Your task to perform on an android device: What's on my calendar today? Image 0: 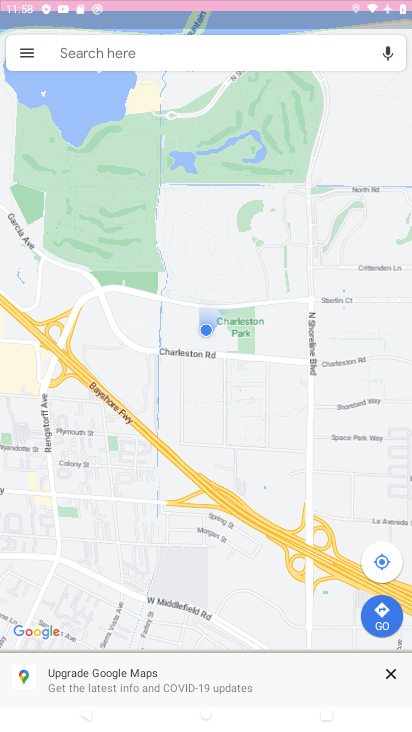
Step 0: drag from (232, 638) to (398, 195)
Your task to perform on an android device: What's on my calendar today? Image 1: 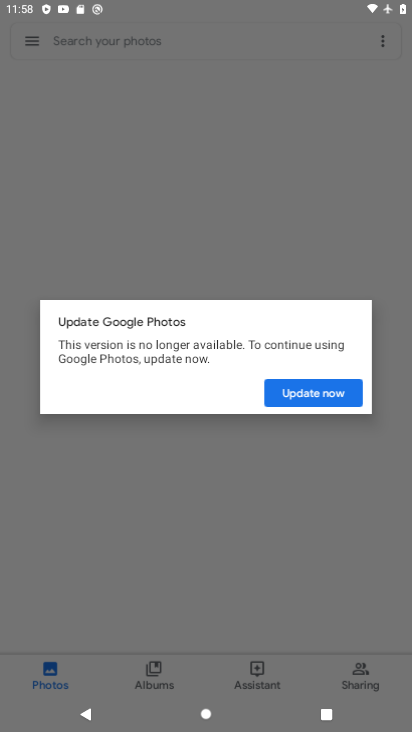
Step 1: press home button
Your task to perform on an android device: What's on my calendar today? Image 2: 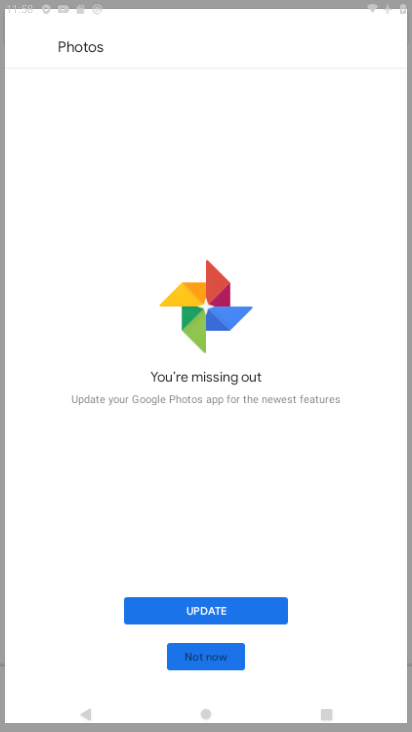
Step 2: click (404, 421)
Your task to perform on an android device: What's on my calendar today? Image 3: 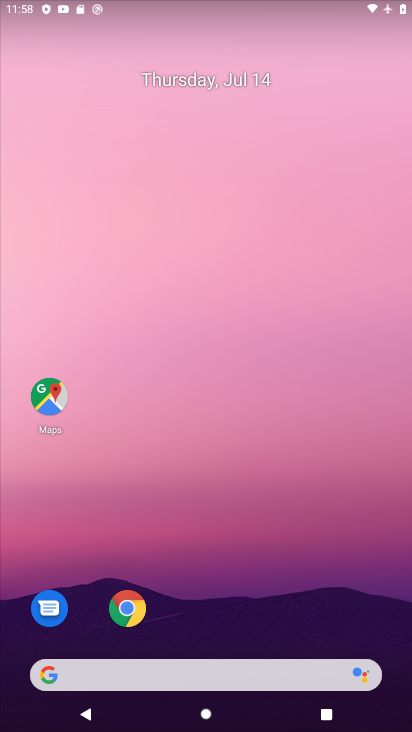
Step 3: drag from (272, 647) to (270, 148)
Your task to perform on an android device: What's on my calendar today? Image 4: 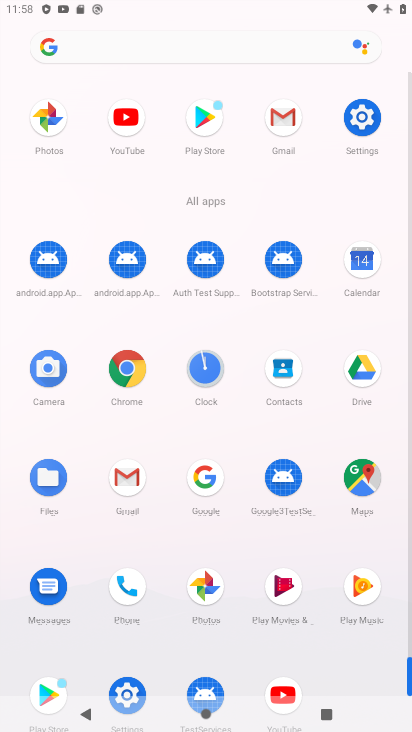
Step 4: click (365, 259)
Your task to perform on an android device: What's on my calendar today? Image 5: 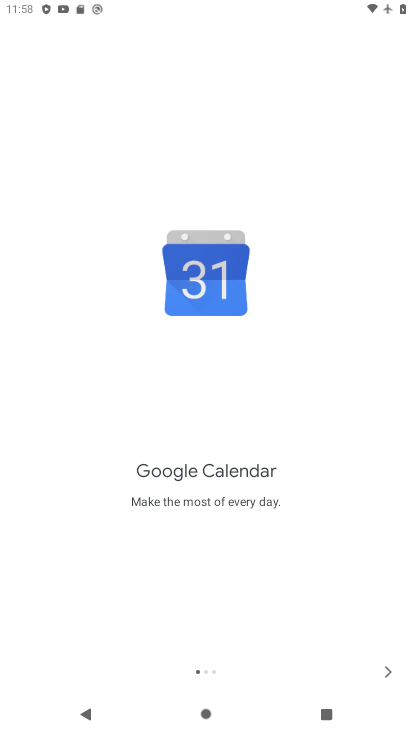
Step 5: click (386, 674)
Your task to perform on an android device: What's on my calendar today? Image 6: 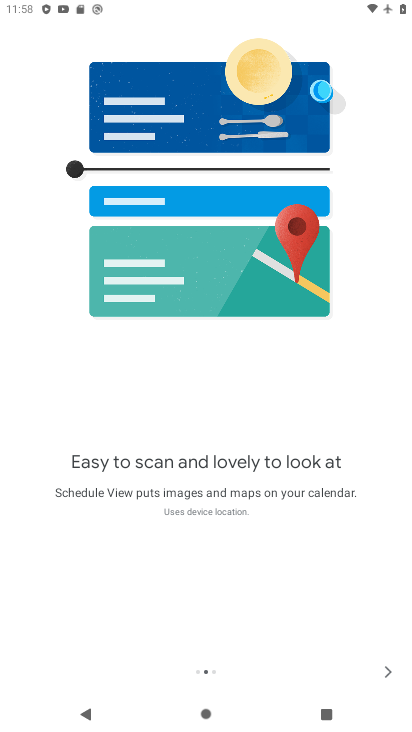
Step 6: click (387, 674)
Your task to perform on an android device: What's on my calendar today? Image 7: 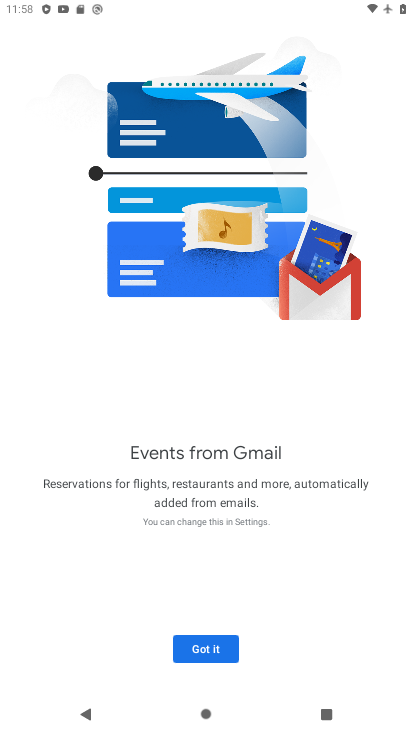
Step 7: click (210, 644)
Your task to perform on an android device: What's on my calendar today? Image 8: 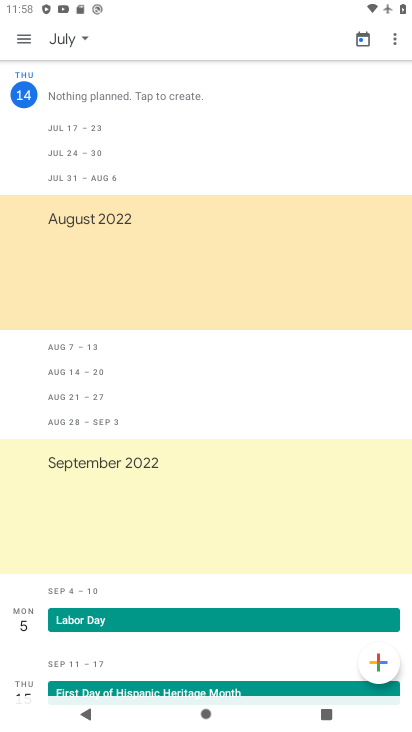
Step 8: click (77, 40)
Your task to perform on an android device: What's on my calendar today? Image 9: 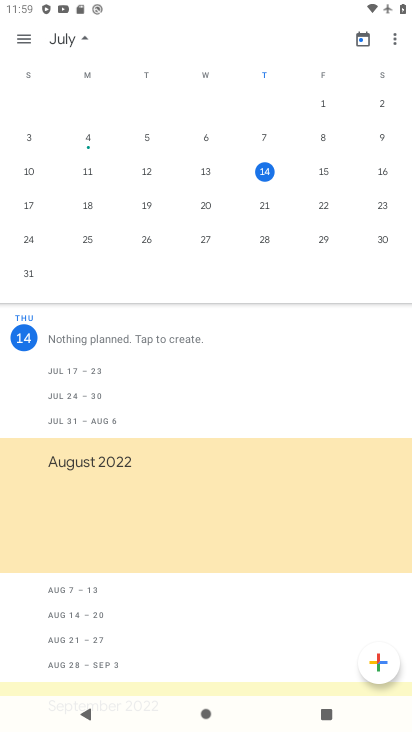
Step 9: click (271, 170)
Your task to perform on an android device: What's on my calendar today? Image 10: 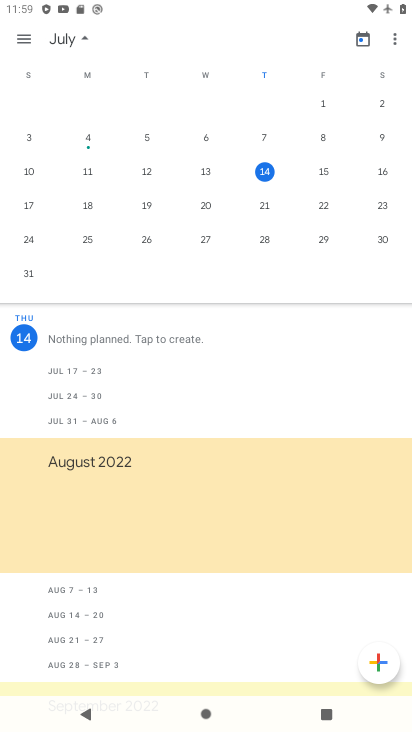
Step 10: task complete